Your task to perform on an android device: move an email to a new category in the gmail app Image 0: 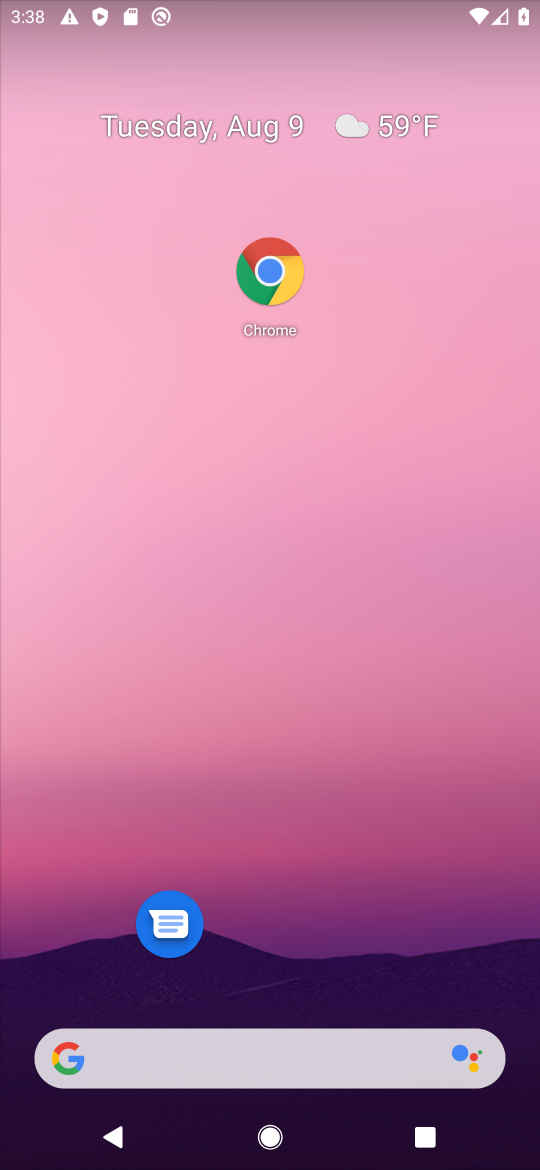
Step 0: drag from (346, 1019) to (254, 259)
Your task to perform on an android device: move an email to a new category in the gmail app Image 1: 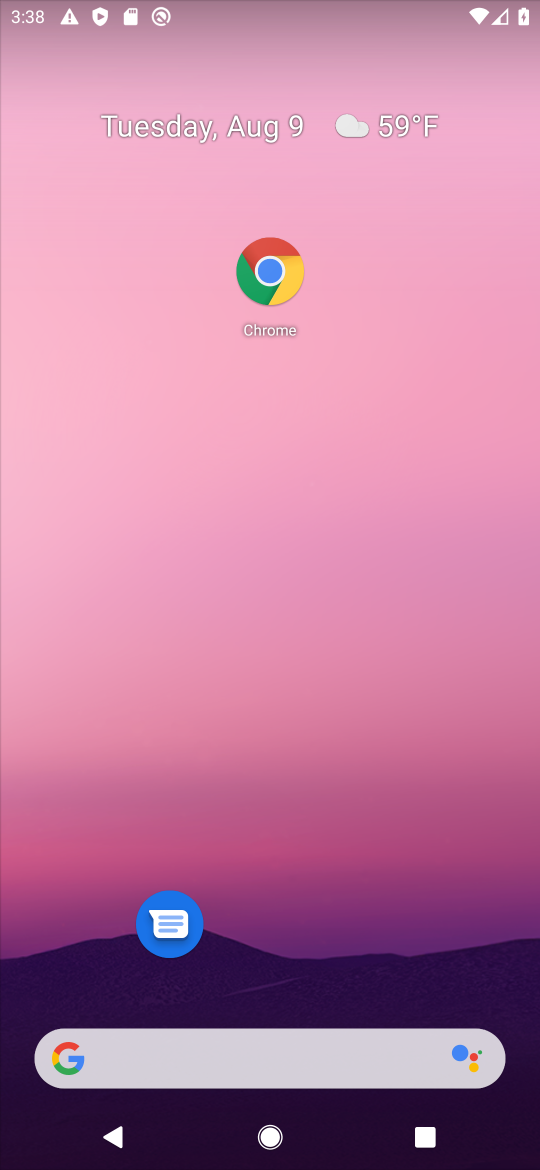
Step 1: click (242, 342)
Your task to perform on an android device: move an email to a new category in the gmail app Image 2: 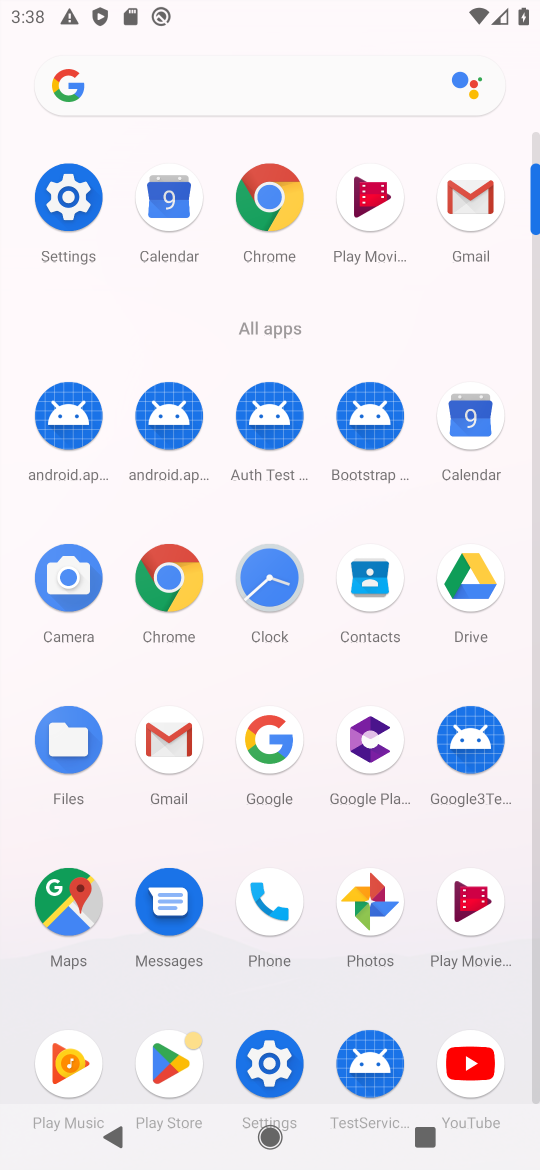
Step 2: click (467, 201)
Your task to perform on an android device: move an email to a new category in the gmail app Image 3: 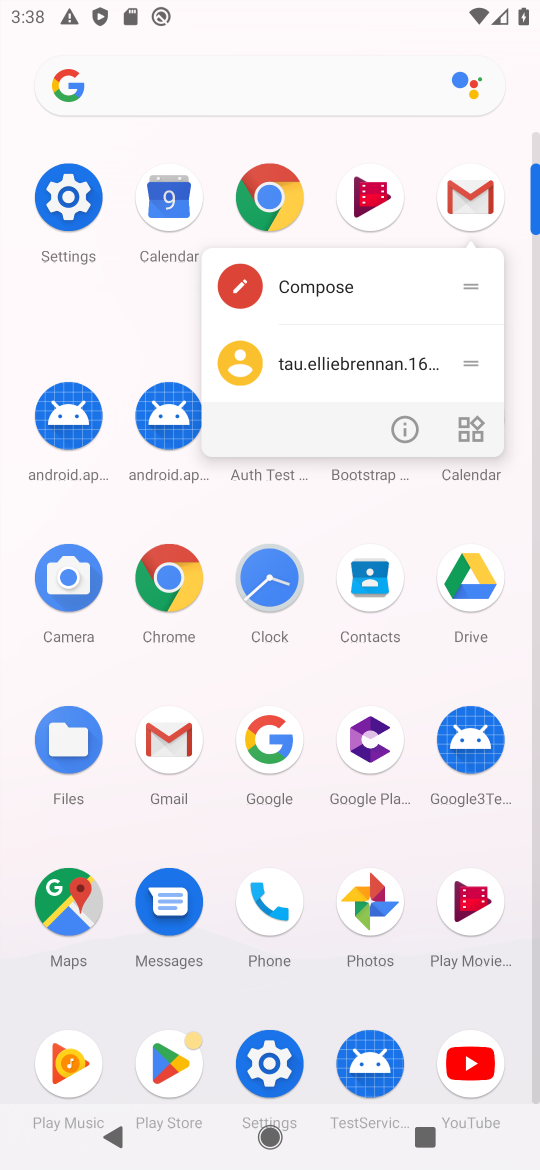
Step 3: click (329, 366)
Your task to perform on an android device: move an email to a new category in the gmail app Image 4: 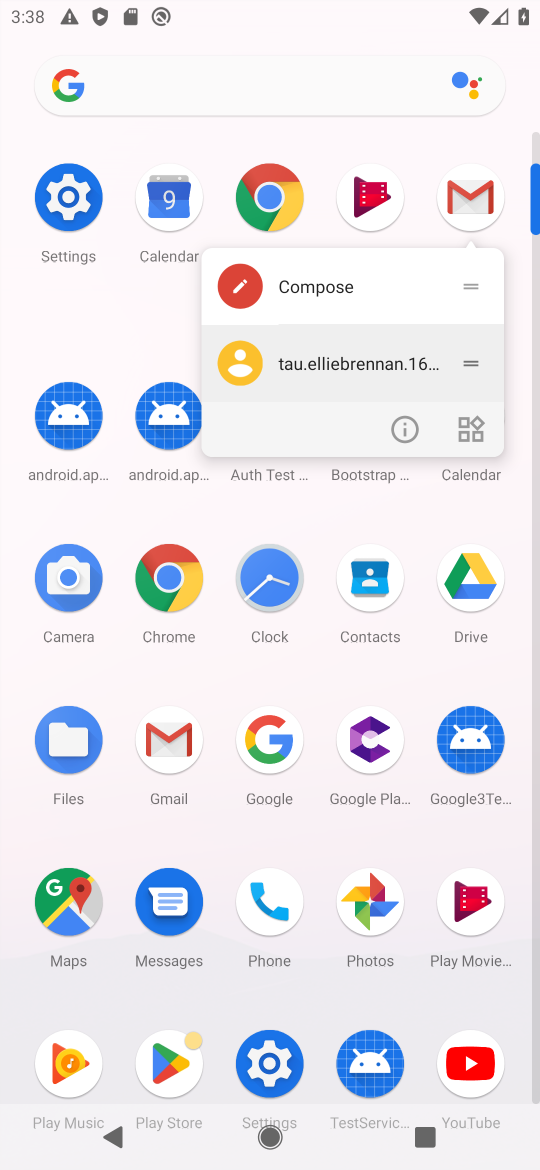
Step 4: click (332, 364)
Your task to perform on an android device: move an email to a new category in the gmail app Image 5: 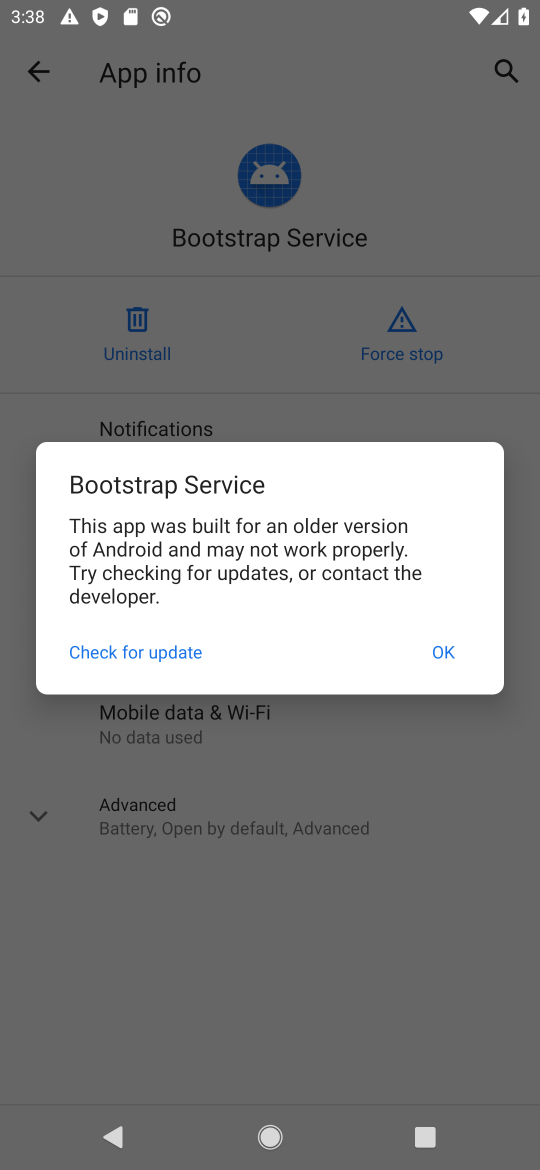
Step 5: click (428, 645)
Your task to perform on an android device: move an email to a new category in the gmail app Image 6: 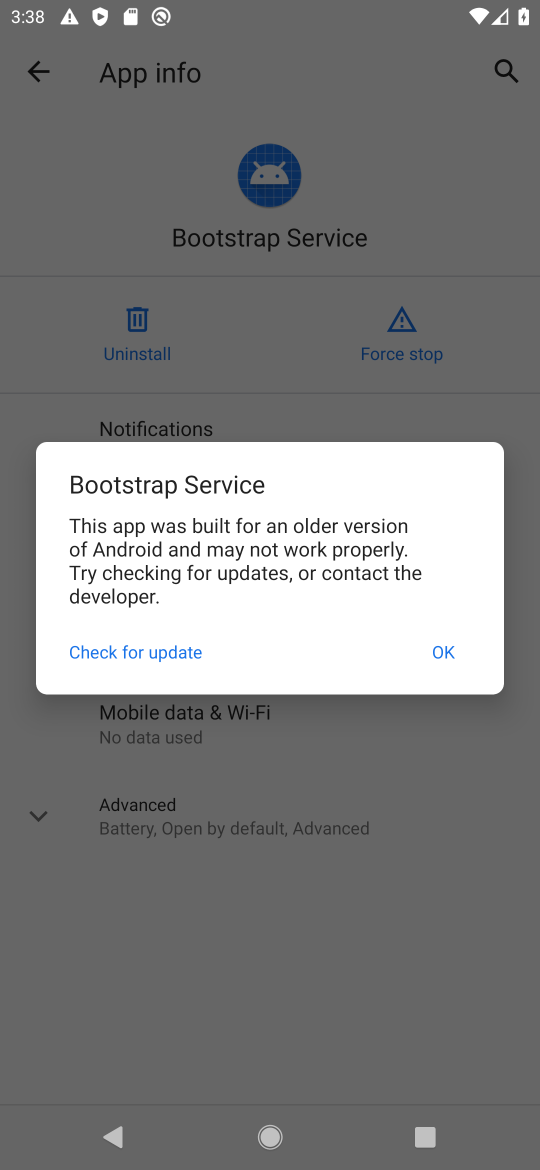
Step 6: click (436, 655)
Your task to perform on an android device: move an email to a new category in the gmail app Image 7: 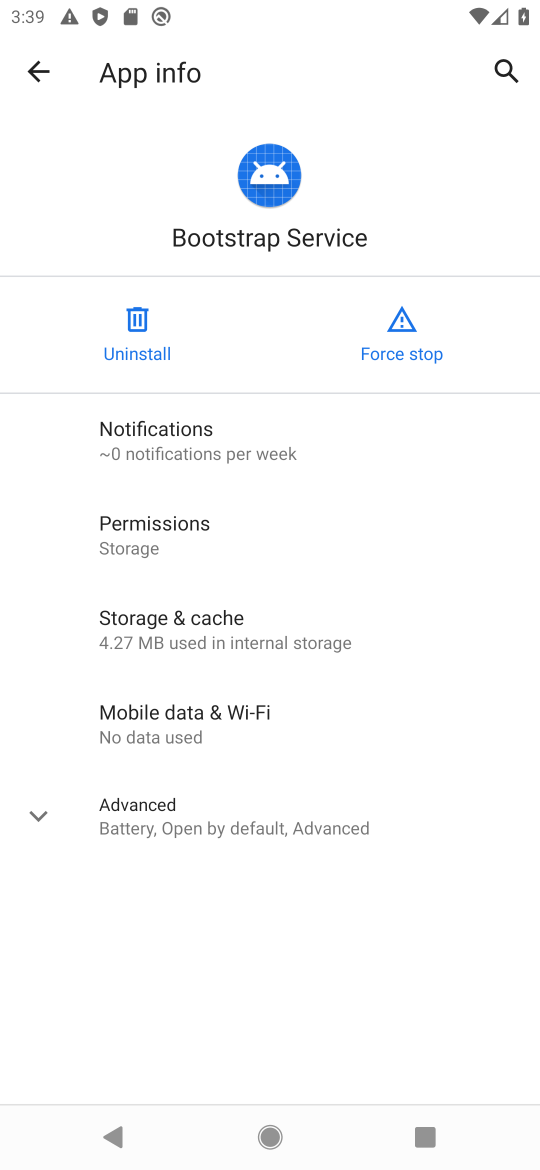
Step 7: click (49, 73)
Your task to perform on an android device: move an email to a new category in the gmail app Image 8: 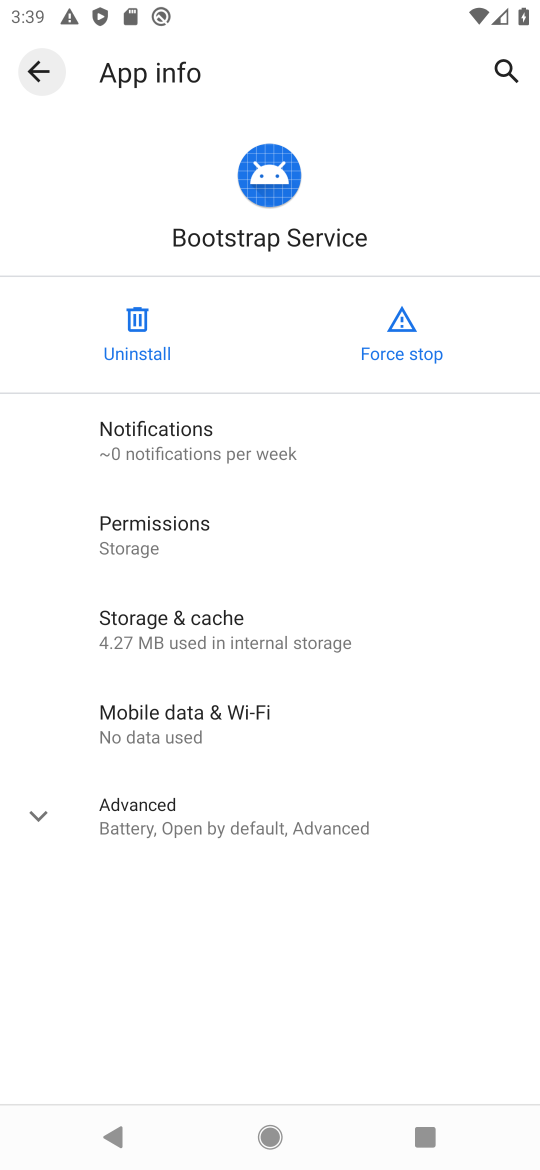
Step 8: click (43, 75)
Your task to perform on an android device: move an email to a new category in the gmail app Image 9: 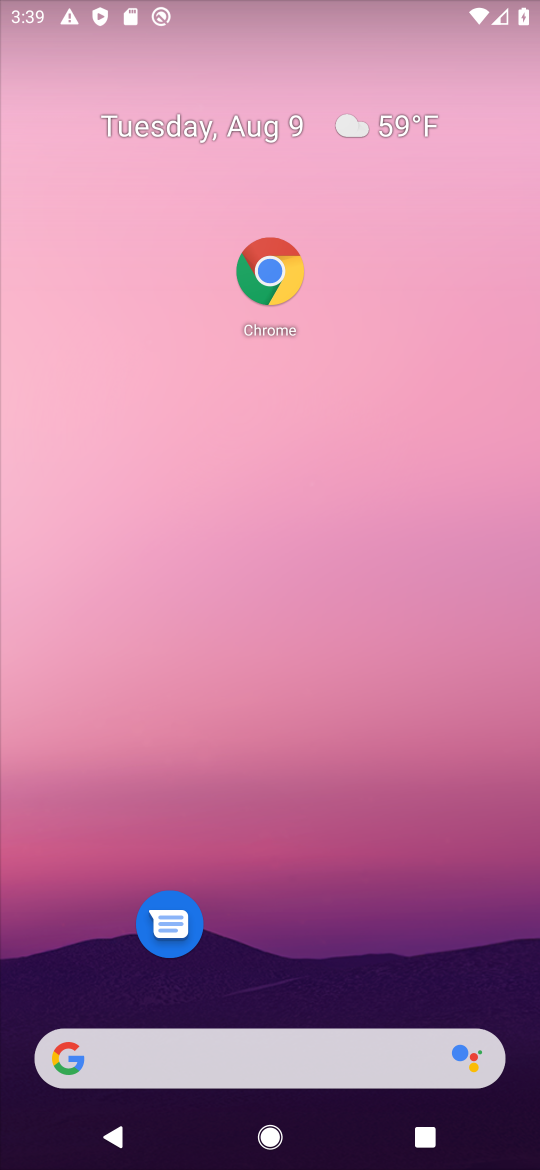
Step 9: drag from (380, 707) to (293, 4)
Your task to perform on an android device: move an email to a new category in the gmail app Image 10: 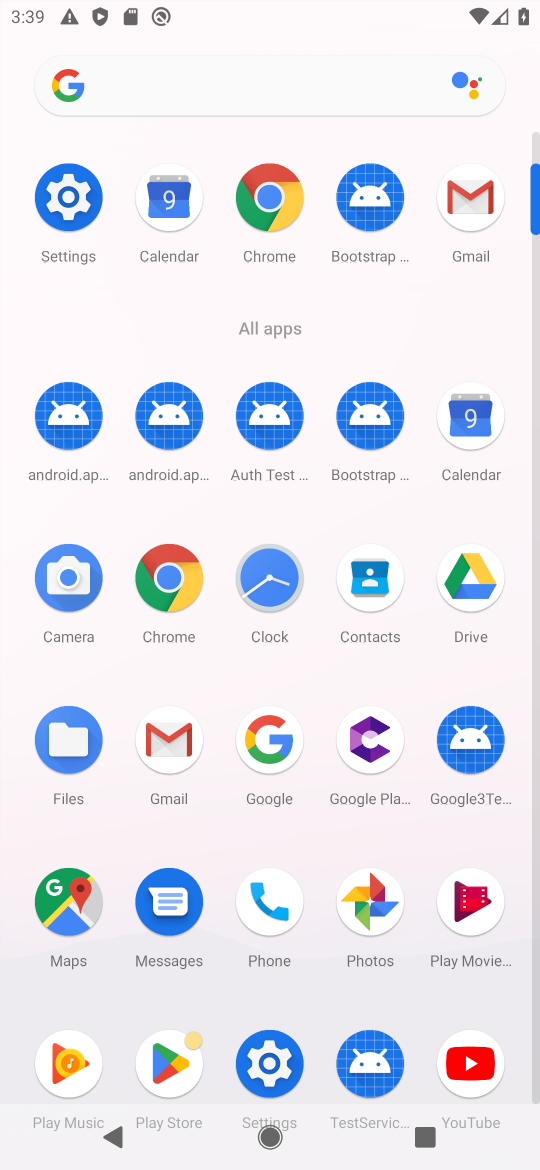
Step 10: click (477, 305)
Your task to perform on an android device: move an email to a new category in the gmail app Image 11: 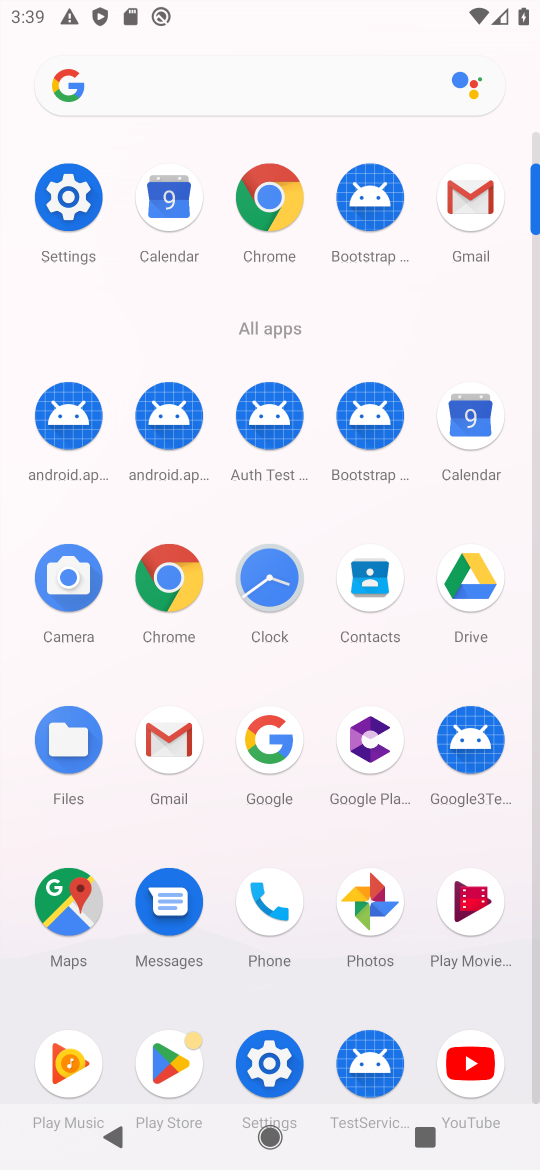
Step 11: click (477, 304)
Your task to perform on an android device: move an email to a new category in the gmail app Image 12: 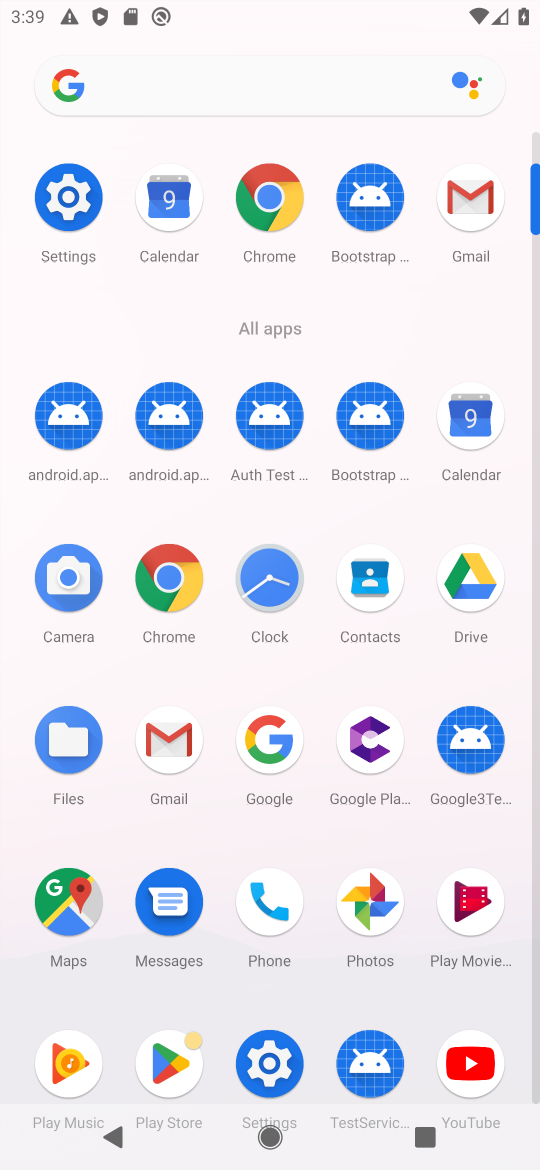
Step 12: click (471, 202)
Your task to perform on an android device: move an email to a new category in the gmail app Image 13: 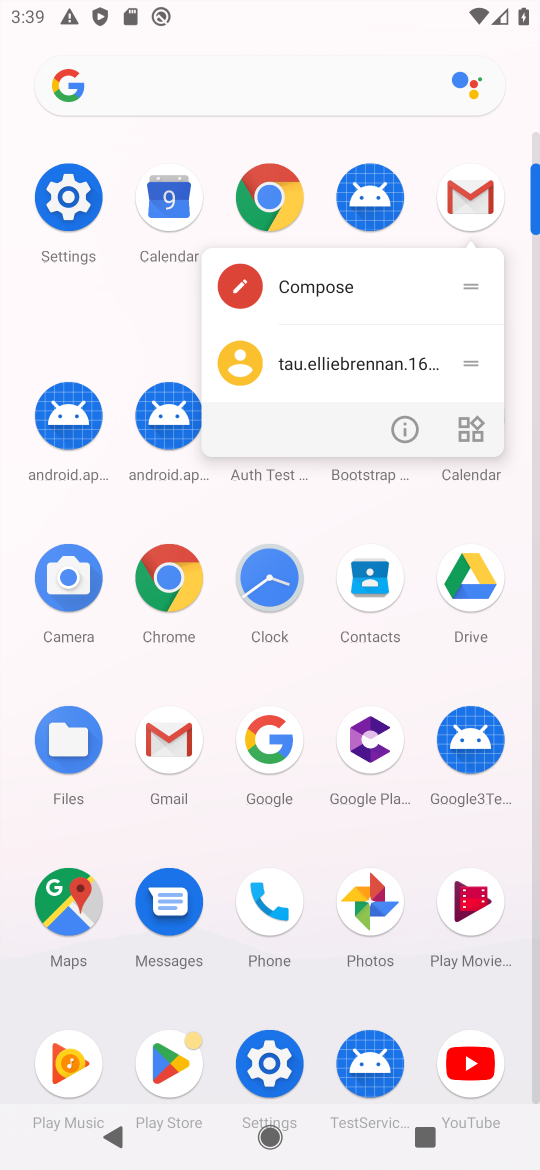
Step 13: click (322, 357)
Your task to perform on an android device: move an email to a new category in the gmail app Image 14: 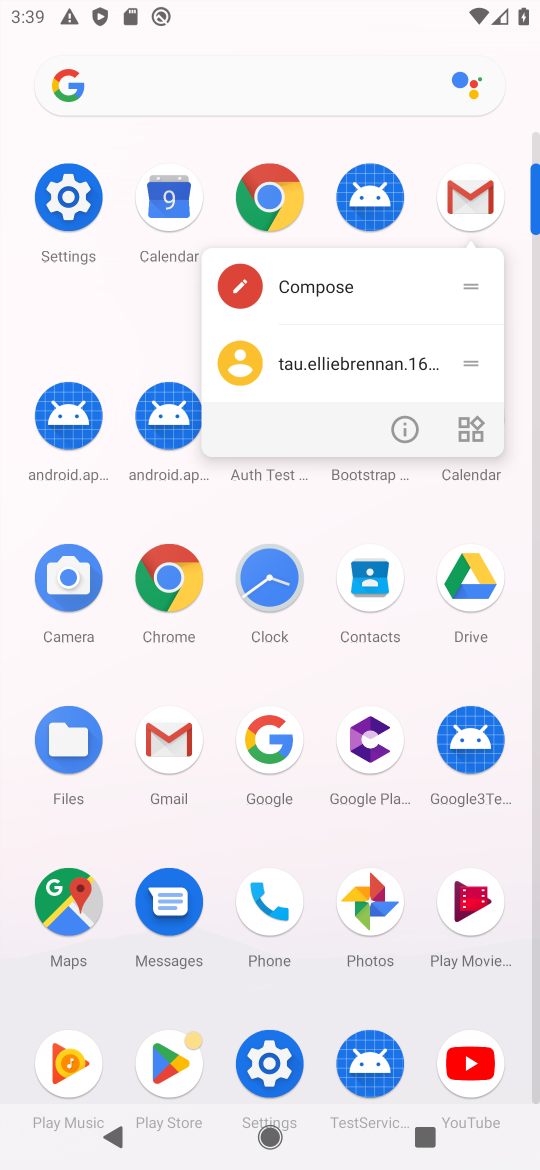
Step 14: click (325, 354)
Your task to perform on an android device: move an email to a new category in the gmail app Image 15: 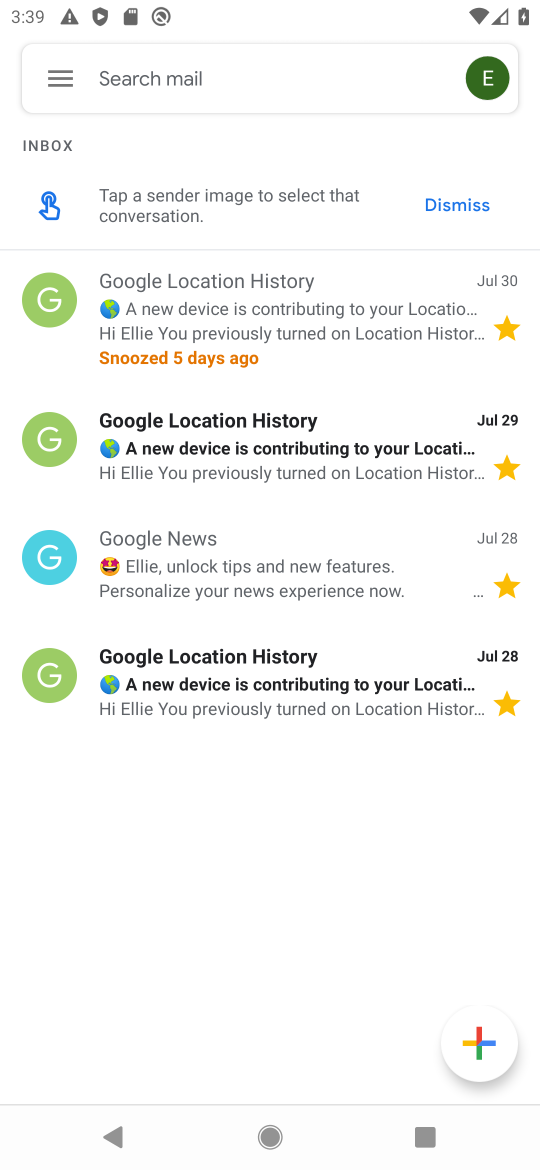
Step 15: click (62, 80)
Your task to perform on an android device: move an email to a new category in the gmail app Image 16: 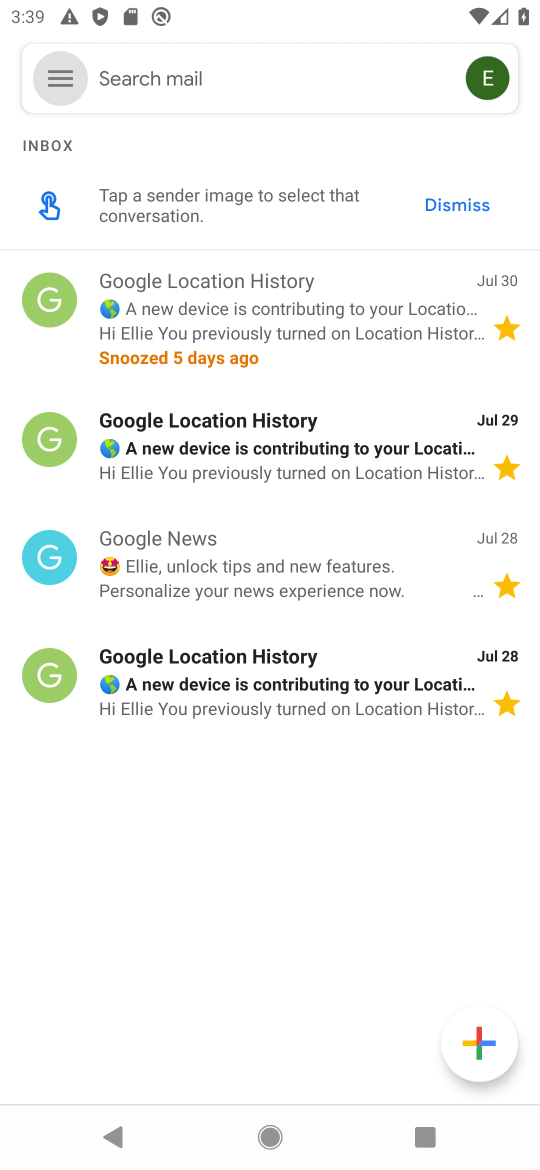
Step 16: click (64, 85)
Your task to perform on an android device: move an email to a new category in the gmail app Image 17: 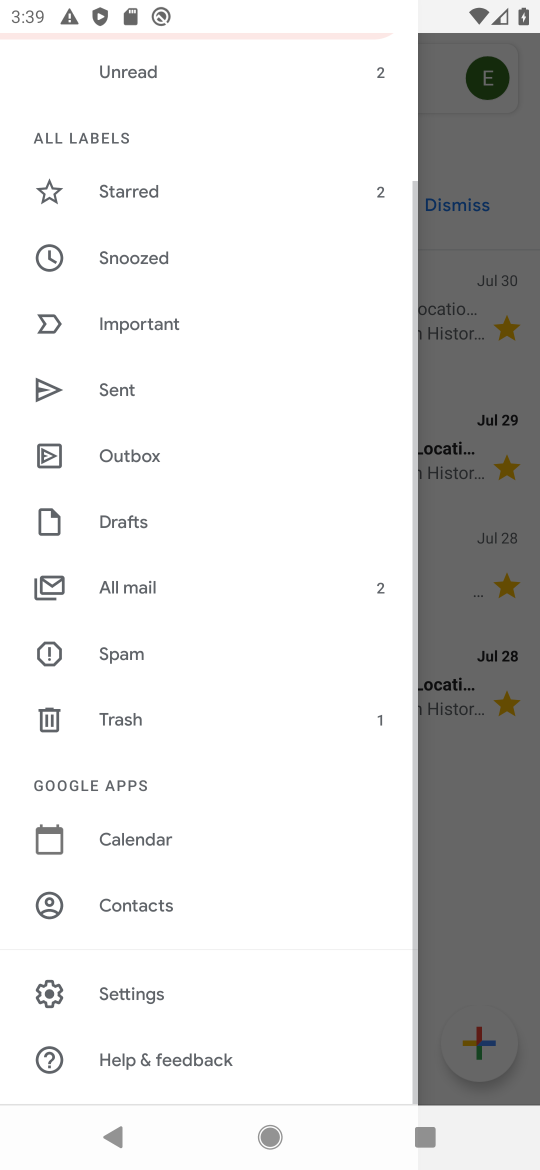
Step 17: click (497, 183)
Your task to perform on an android device: move an email to a new category in the gmail app Image 18: 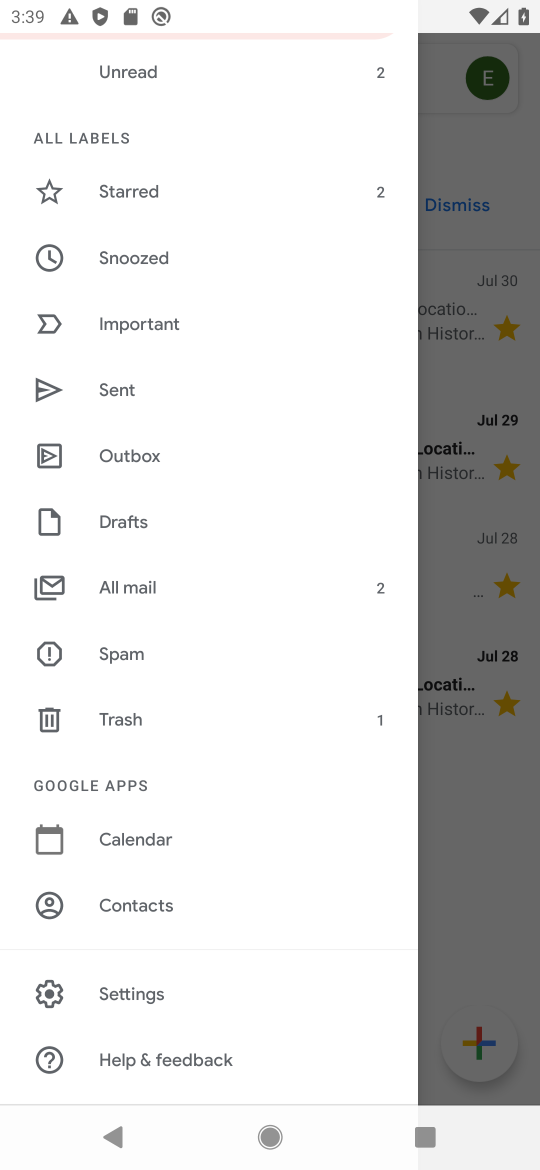
Step 18: click (497, 183)
Your task to perform on an android device: move an email to a new category in the gmail app Image 19: 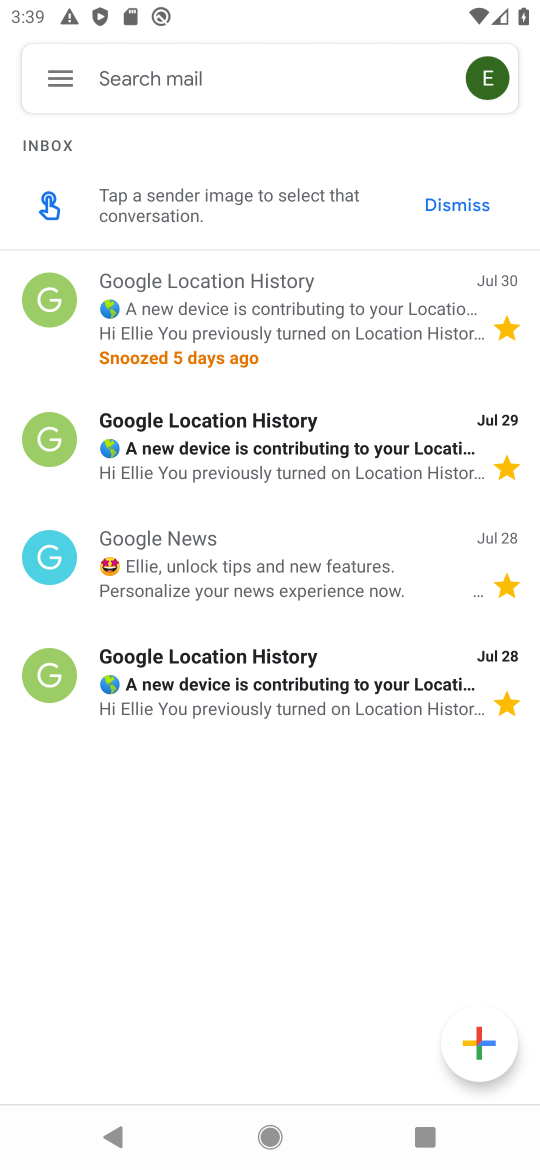
Step 19: click (278, 687)
Your task to perform on an android device: move an email to a new category in the gmail app Image 20: 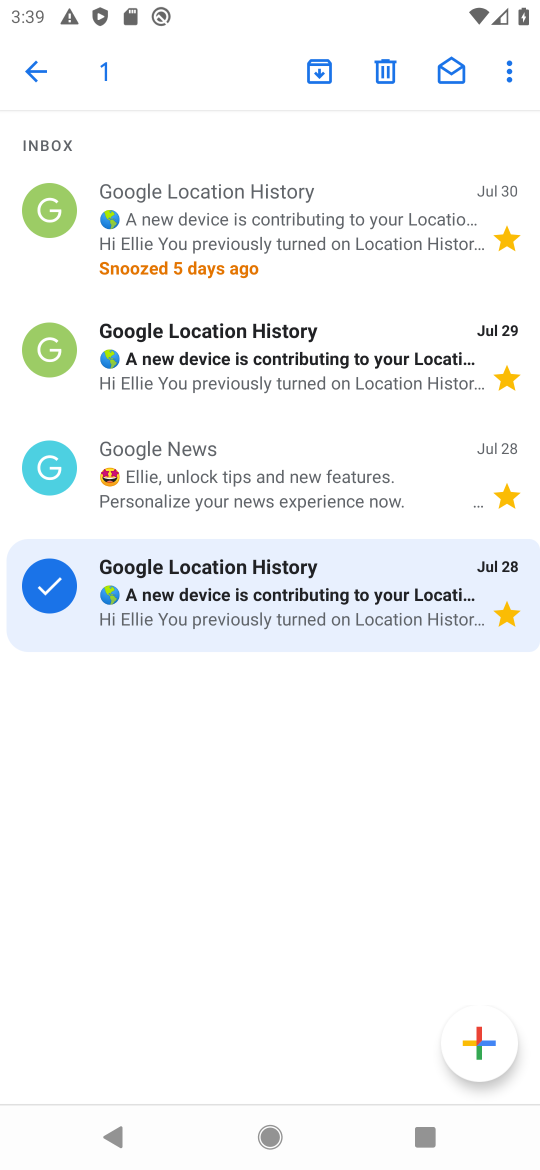
Step 20: click (514, 54)
Your task to perform on an android device: move an email to a new category in the gmail app Image 21: 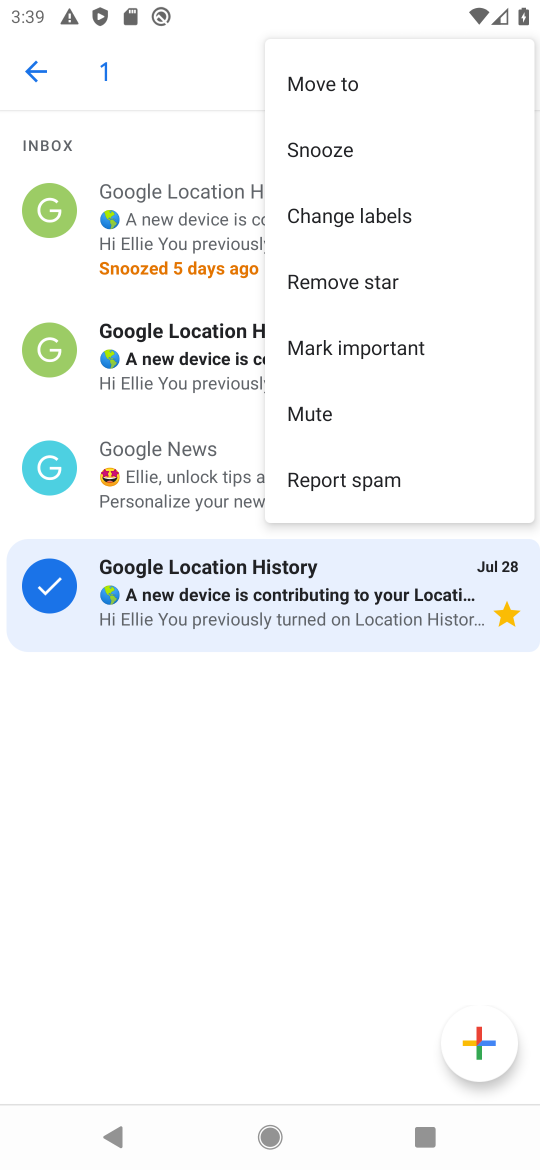
Step 21: click (340, 291)
Your task to perform on an android device: move an email to a new category in the gmail app Image 22: 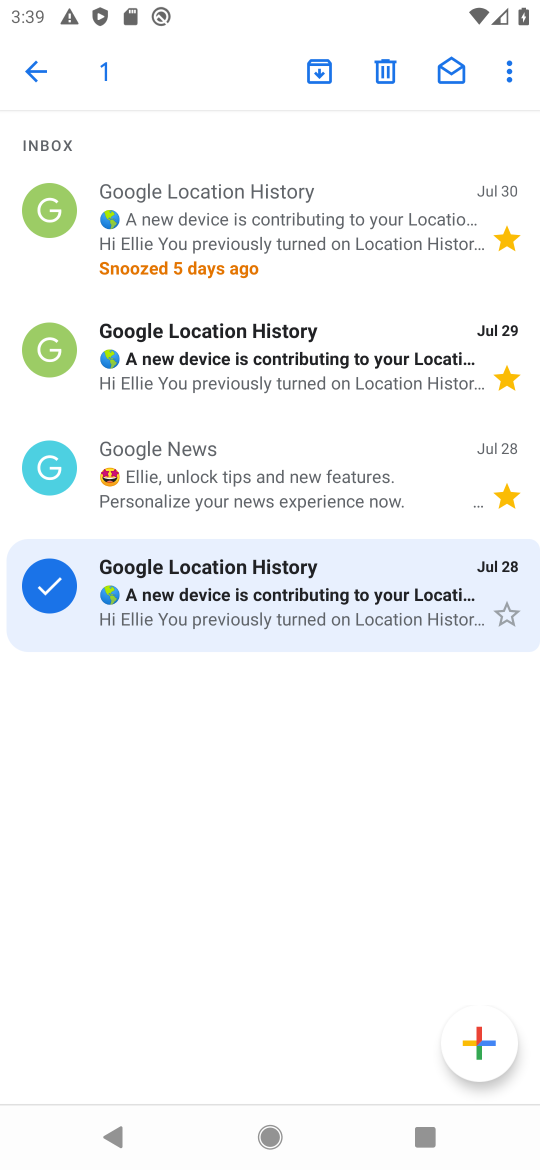
Step 22: task complete